Your task to perform on an android device: Open settings Image 0: 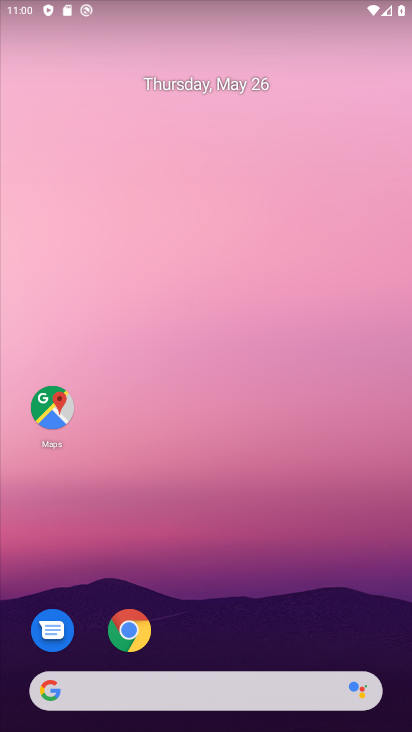
Step 0: drag from (237, 608) to (213, 115)
Your task to perform on an android device: Open settings Image 1: 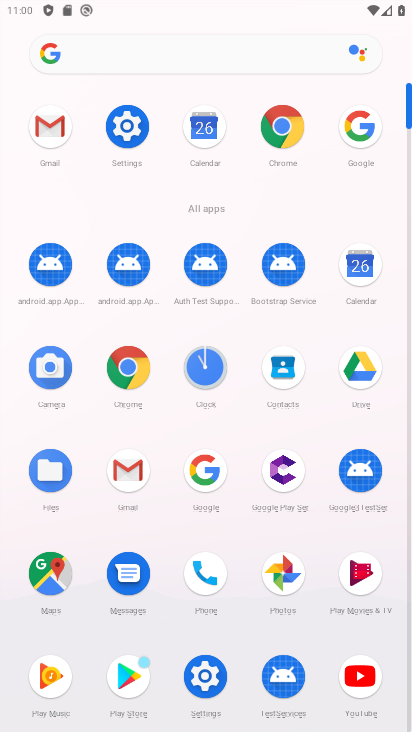
Step 1: click (124, 126)
Your task to perform on an android device: Open settings Image 2: 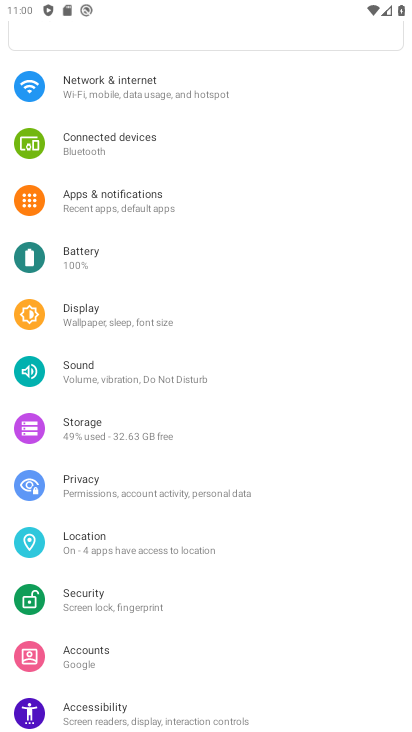
Step 2: task complete